Your task to perform on an android device: Show me popular games on the Play Store Image 0: 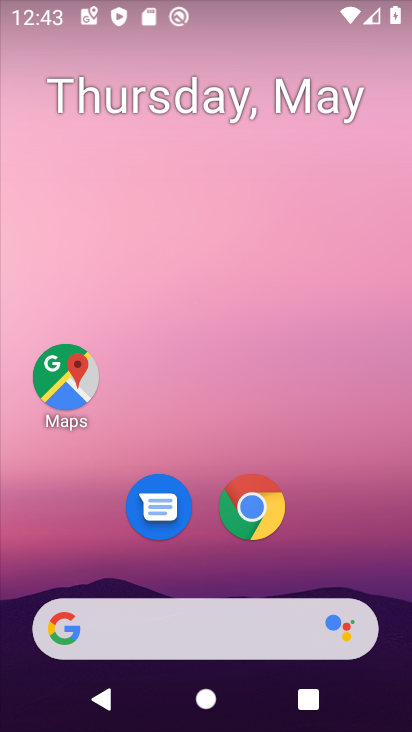
Step 0: drag from (312, 560) to (271, 54)
Your task to perform on an android device: Show me popular games on the Play Store Image 1: 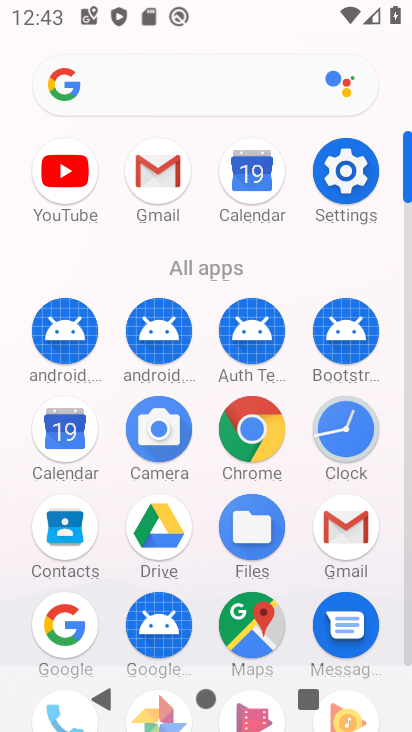
Step 1: drag from (170, 651) to (182, 145)
Your task to perform on an android device: Show me popular games on the Play Store Image 2: 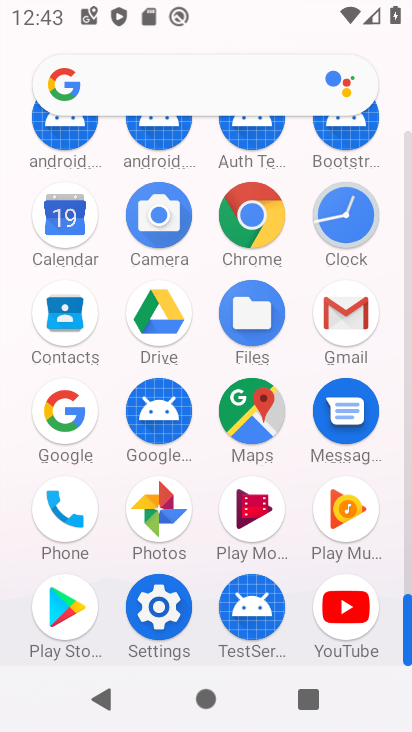
Step 2: click (65, 616)
Your task to perform on an android device: Show me popular games on the Play Store Image 3: 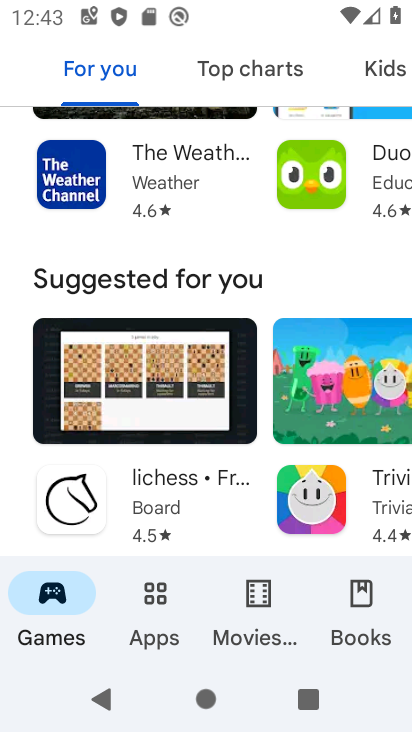
Step 3: task complete